Your task to perform on an android device: set an alarm Image 0: 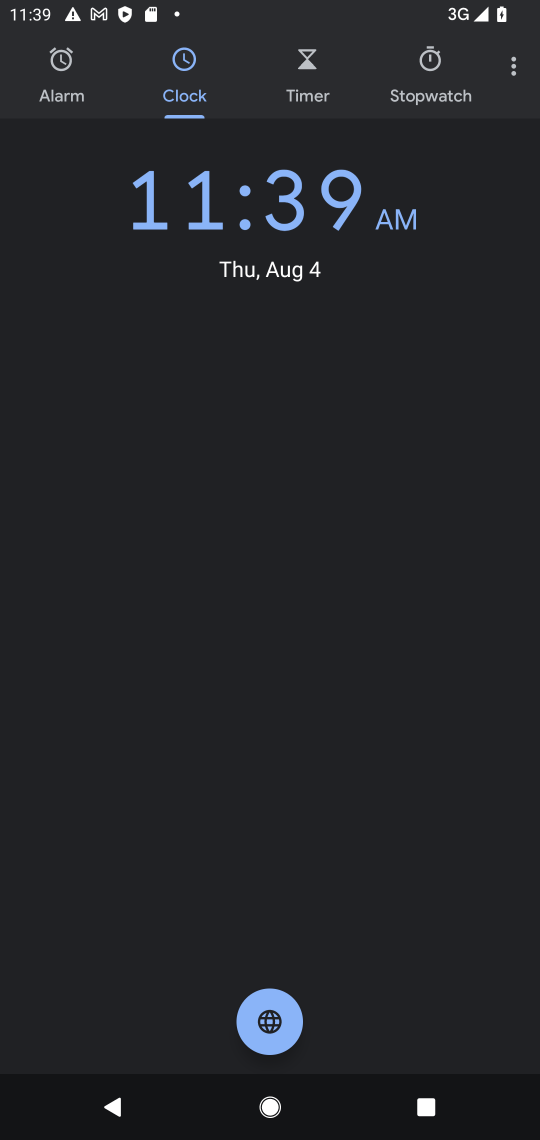
Step 0: press home button
Your task to perform on an android device: set an alarm Image 1: 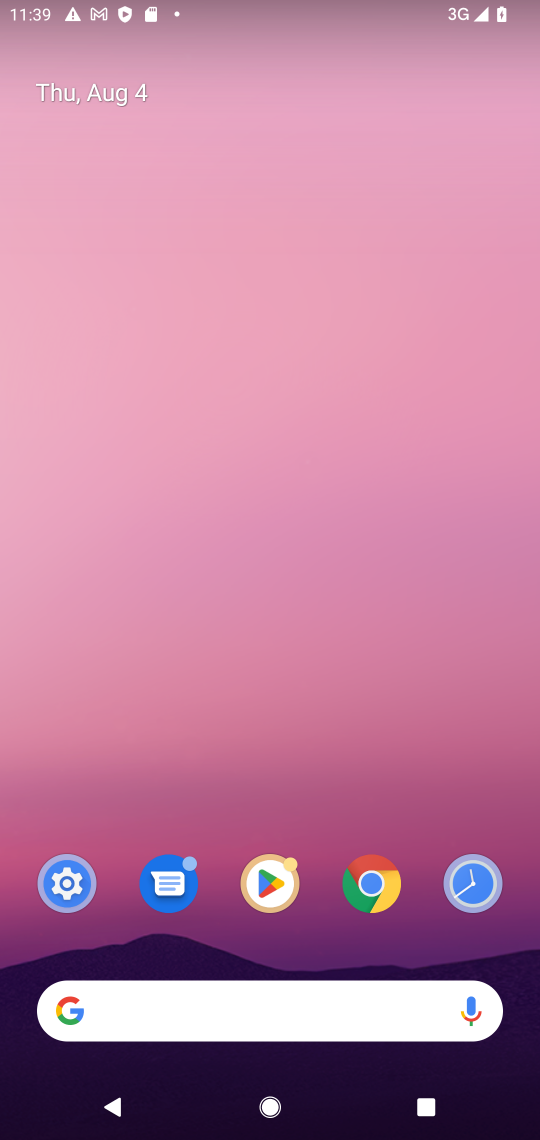
Step 1: drag from (214, 955) to (256, 215)
Your task to perform on an android device: set an alarm Image 2: 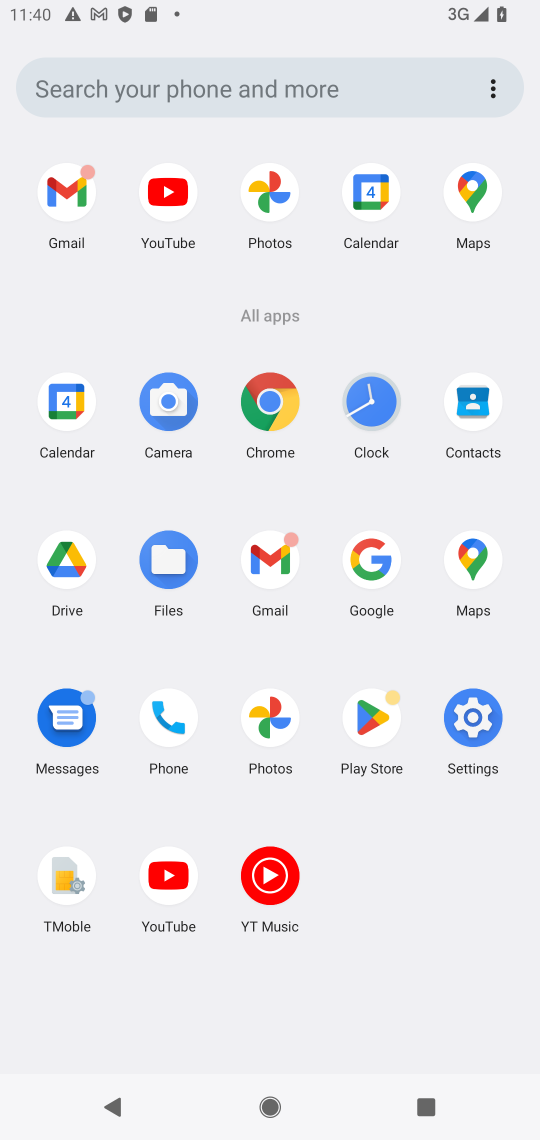
Step 2: click (348, 391)
Your task to perform on an android device: set an alarm Image 3: 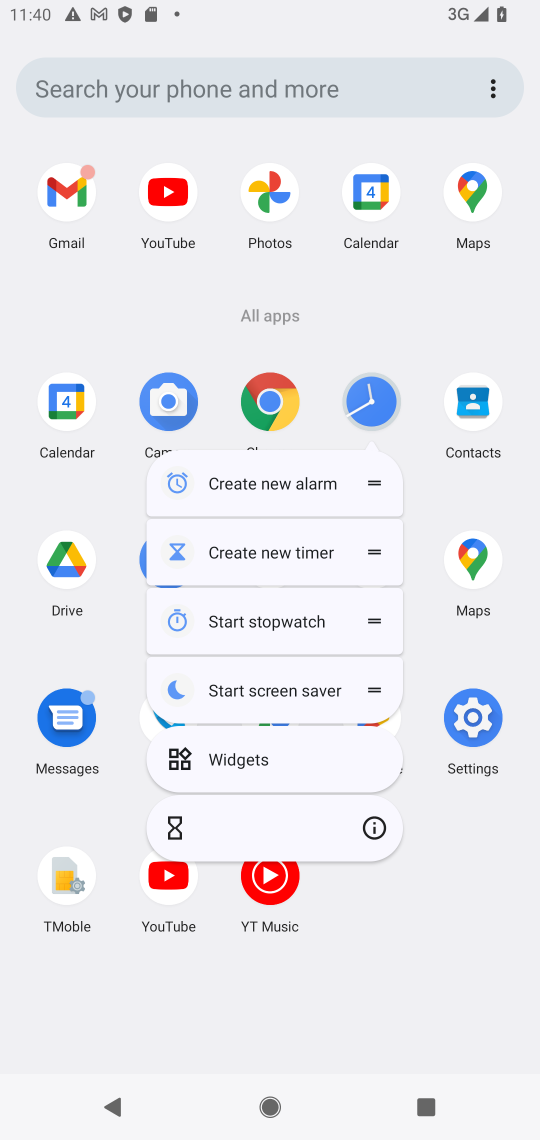
Step 3: click (379, 811)
Your task to perform on an android device: set an alarm Image 4: 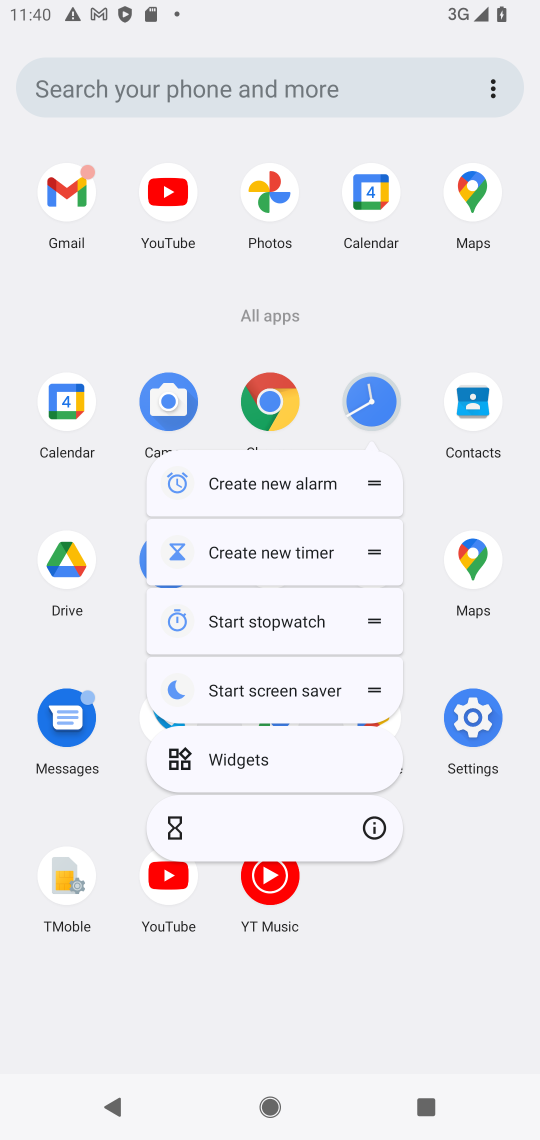
Step 4: click (371, 817)
Your task to perform on an android device: set an alarm Image 5: 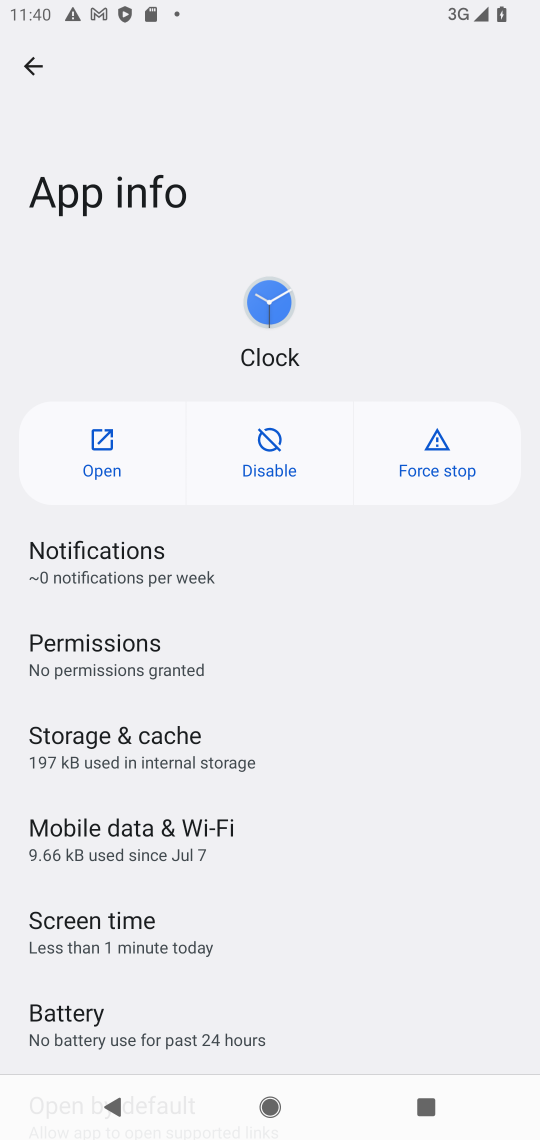
Step 5: click (115, 419)
Your task to perform on an android device: set an alarm Image 6: 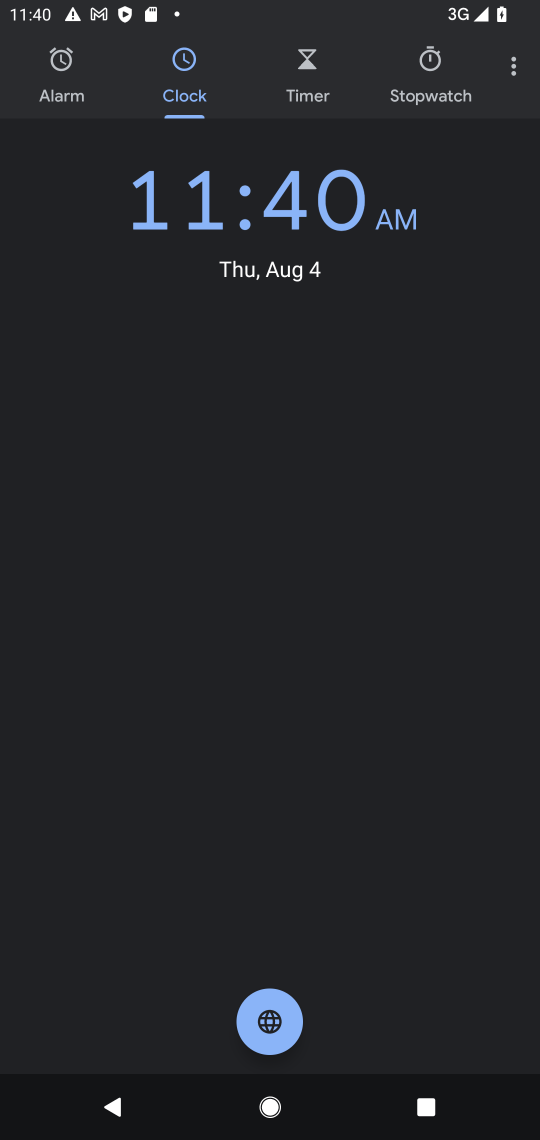
Step 6: click (85, 75)
Your task to perform on an android device: set an alarm Image 7: 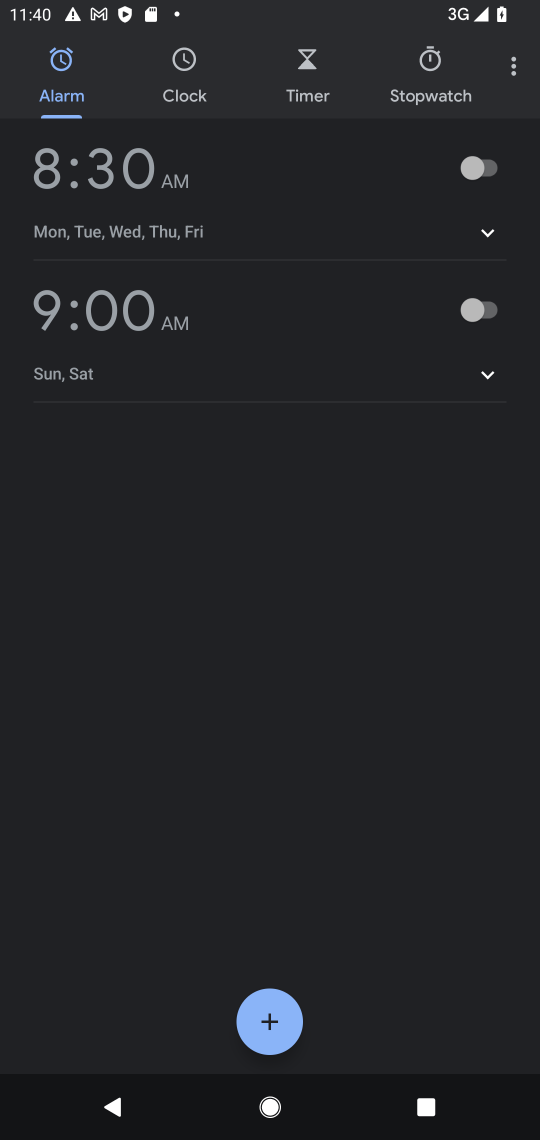
Step 7: click (475, 180)
Your task to perform on an android device: set an alarm Image 8: 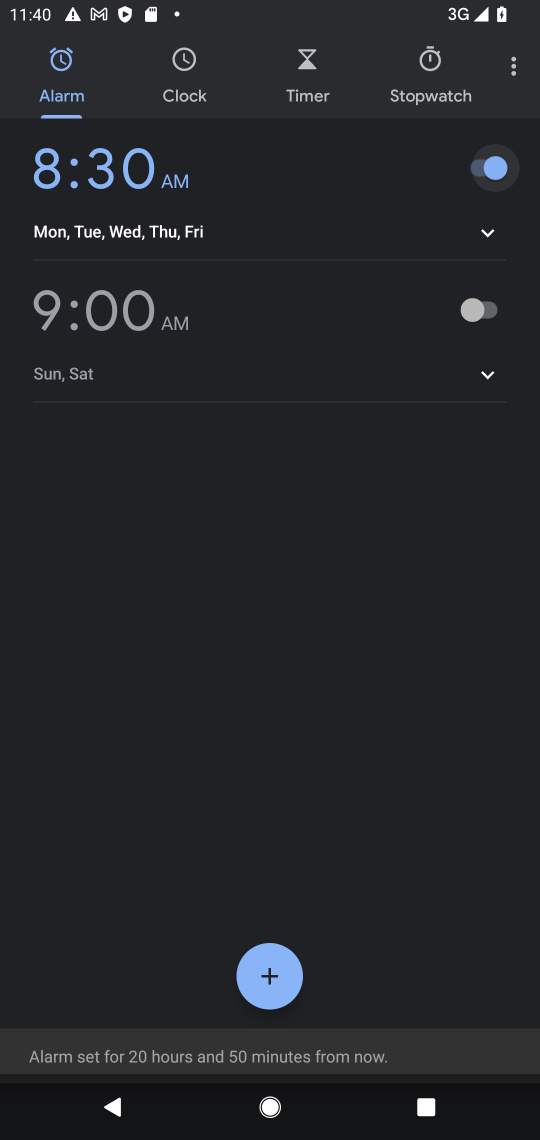
Step 8: task complete